Your task to perform on an android device: toggle show notifications on the lock screen Image 0: 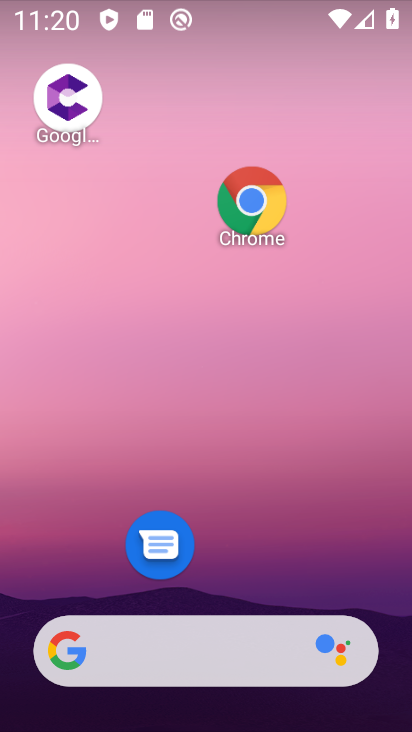
Step 0: press home button
Your task to perform on an android device: toggle show notifications on the lock screen Image 1: 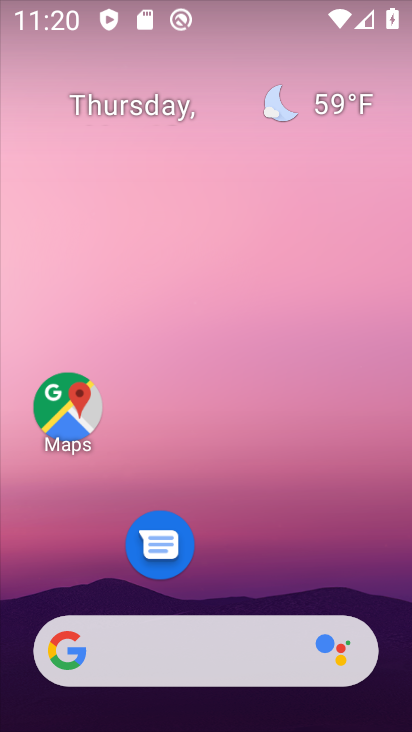
Step 1: drag from (213, 602) to (201, 335)
Your task to perform on an android device: toggle show notifications on the lock screen Image 2: 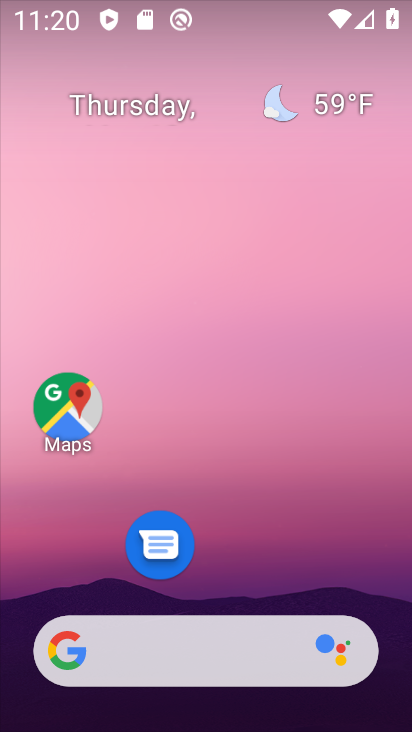
Step 2: drag from (183, 592) to (188, 201)
Your task to perform on an android device: toggle show notifications on the lock screen Image 3: 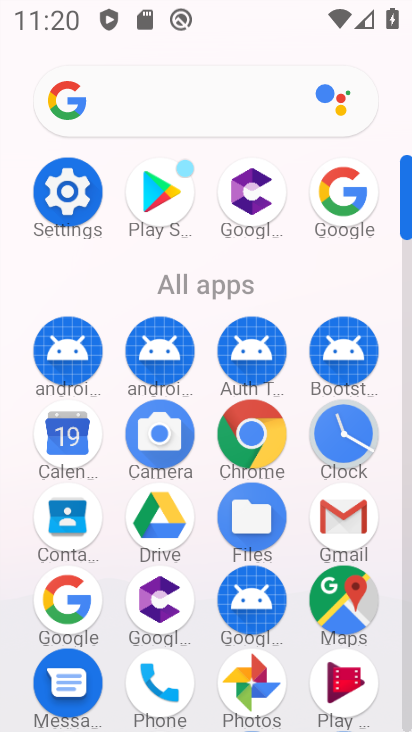
Step 3: click (59, 189)
Your task to perform on an android device: toggle show notifications on the lock screen Image 4: 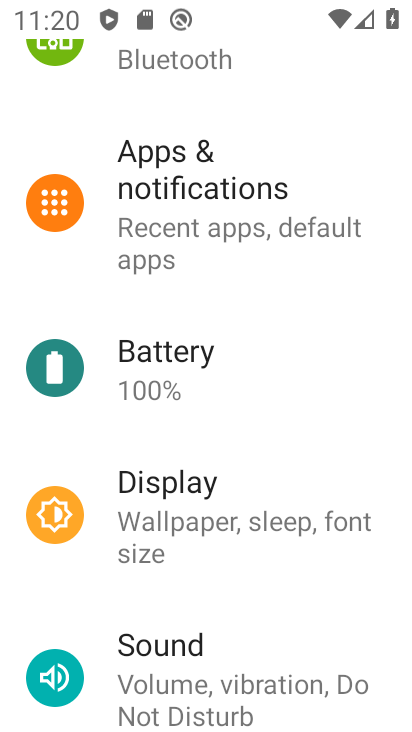
Step 4: drag from (213, 692) to (229, 283)
Your task to perform on an android device: toggle show notifications on the lock screen Image 5: 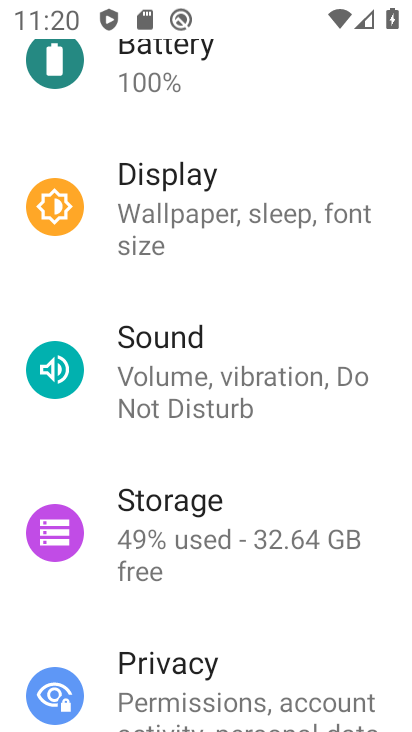
Step 5: click (185, 699)
Your task to perform on an android device: toggle show notifications on the lock screen Image 6: 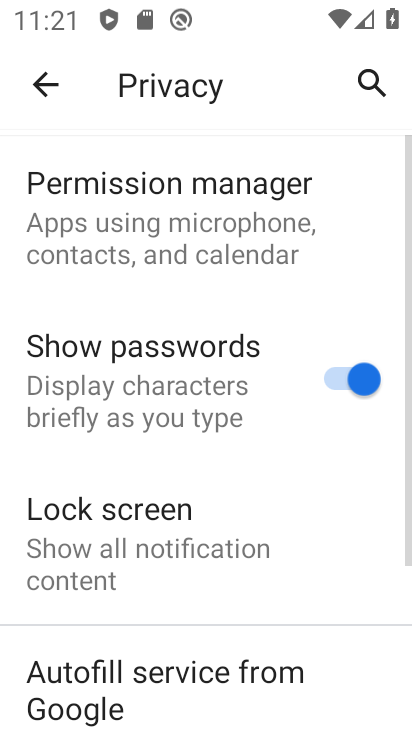
Step 6: click (119, 540)
Your task to perform on an android device: toggle show notifications on the lock screen Image 7: 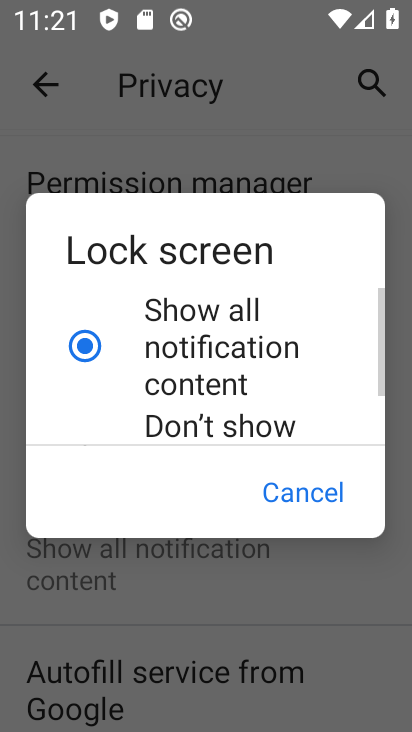
Step 7: click (103, 397)
Your task to perform on an android device: toggle show notifications on the lock screen Image 8: 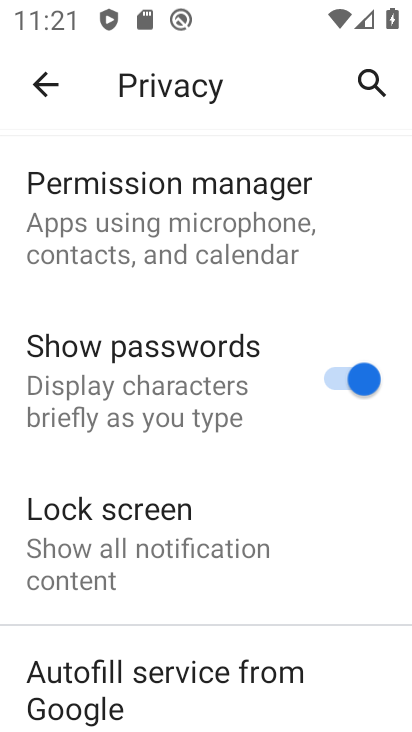
Step 8: click (98, 562)
Your task to perform on an android device: toggle show notifications on the lock screen Image 9: 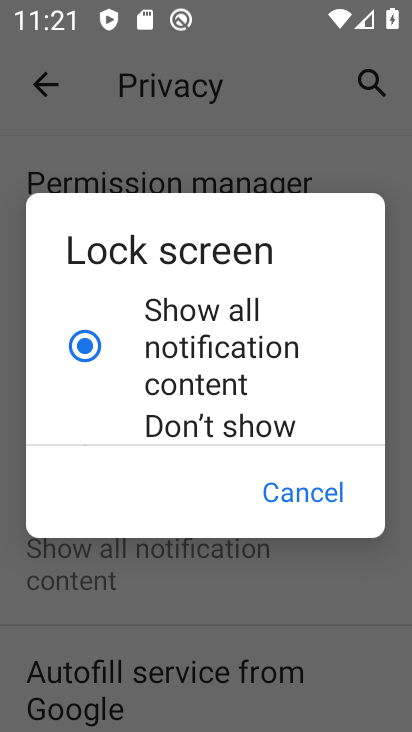
Step 9: click (236, 250)
Your task to perform on an android device: toggle show notifications on the lock screen Image 10: 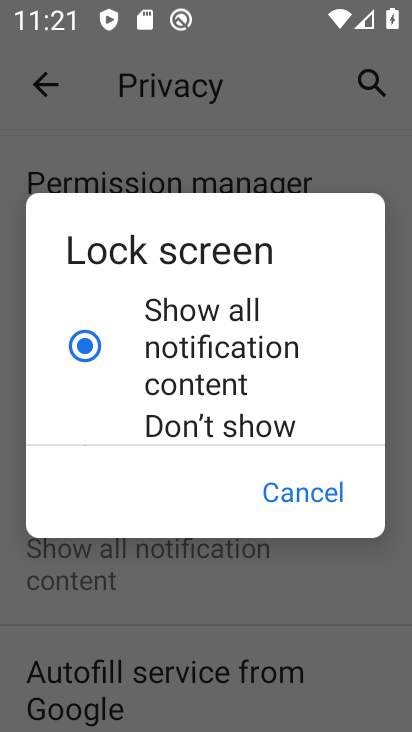
Step 10: click (214, 201)
Your task to perform on an android device: toggle show notifications on the lock screen Image 11: 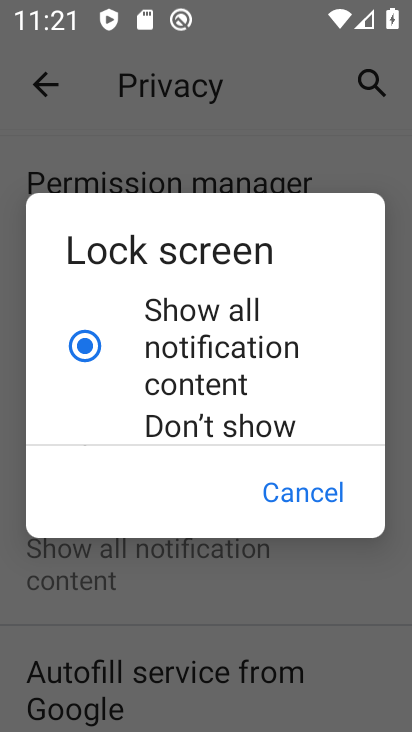
Step 11: click (87, 441)
Your task to perform on an android device: toggle show notifications on the lock screen Image 12: 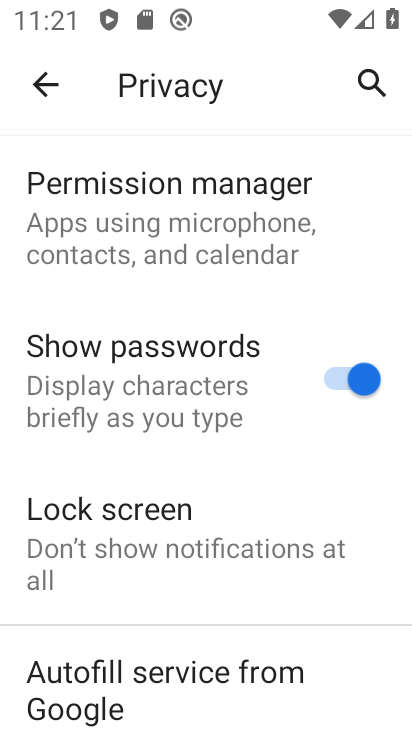
Step 12: task complete